Your task to perform on an android device: toggle data saver in the chrome app Image 0: 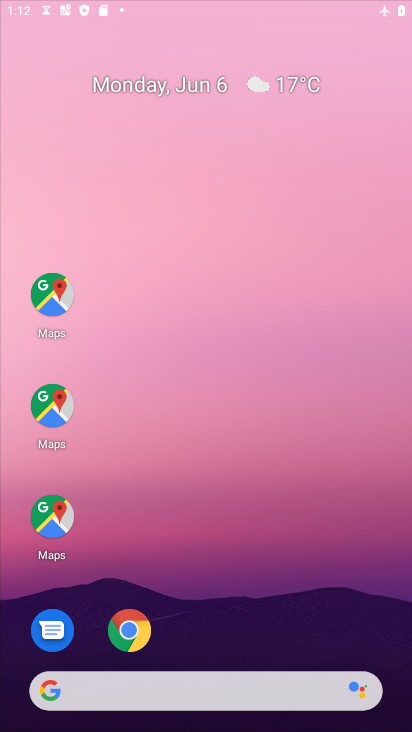
Step 0: drag from (175, 170) to (252, 139)
Your task to perform on an android device: toggle data saver in the chrome app Image 1: 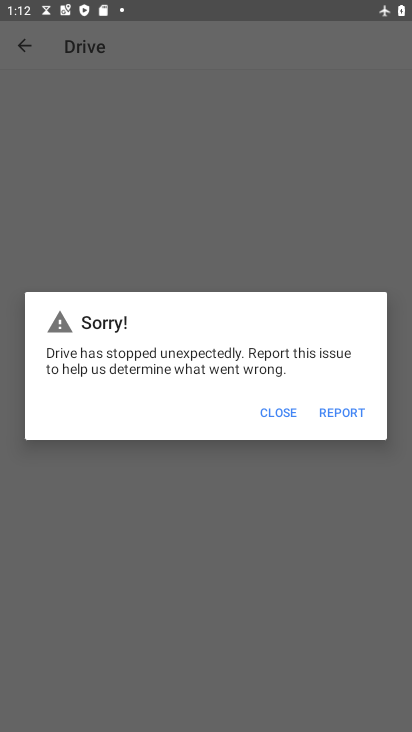
Step 1: click (272, 403)
Your task to perform on an android device: toggle data saver in the chrome app Image 2: 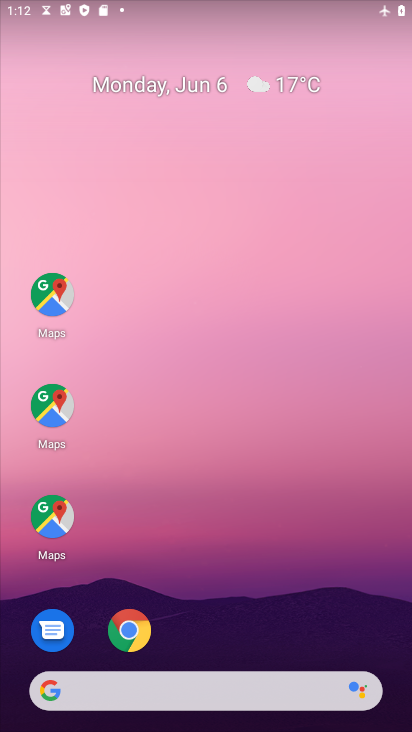
Step 2: drag from (238, 596) to (237, 140)
Your task to perform on an android device: toggle data saver in the chrome app Image 3: 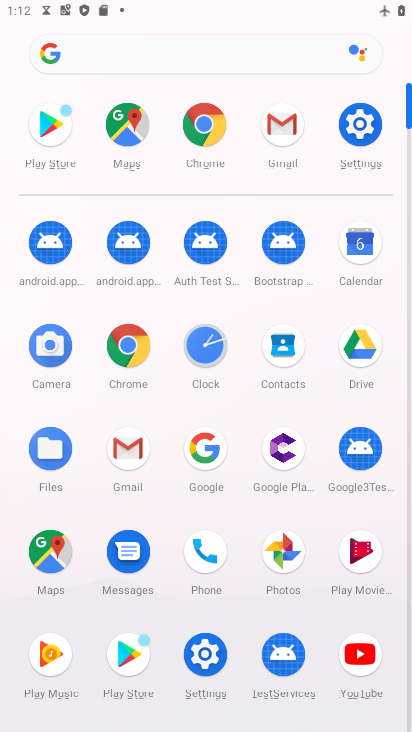
Step 3: click (192, 117)
Your task to perform on an android device: toggle data saver in the chrome app Image 4: 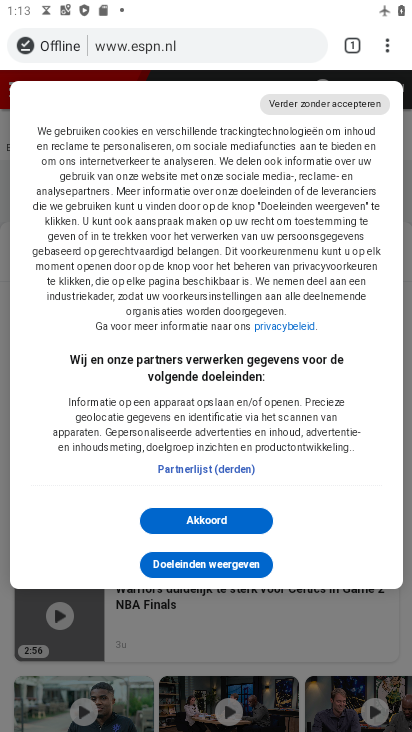
Step 4: drag from (382, 44) to (261, 361)
Your task to perform on an android device: toggle data saver in the chrome app Image 5: 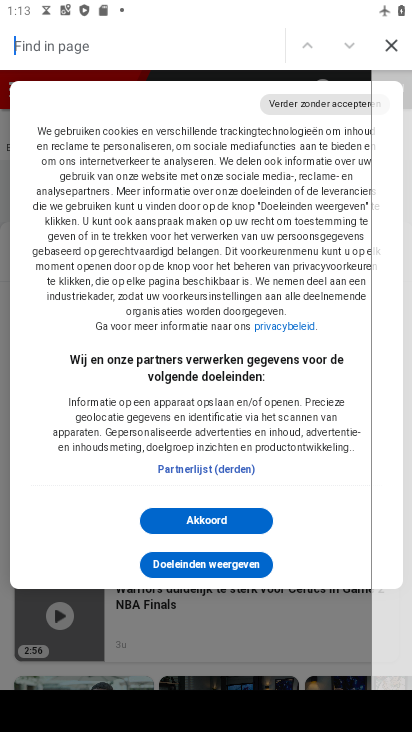
Step 5: click (261, 321)
Your task to perform on an android device: toggle data saver in the chrome app Image 6: 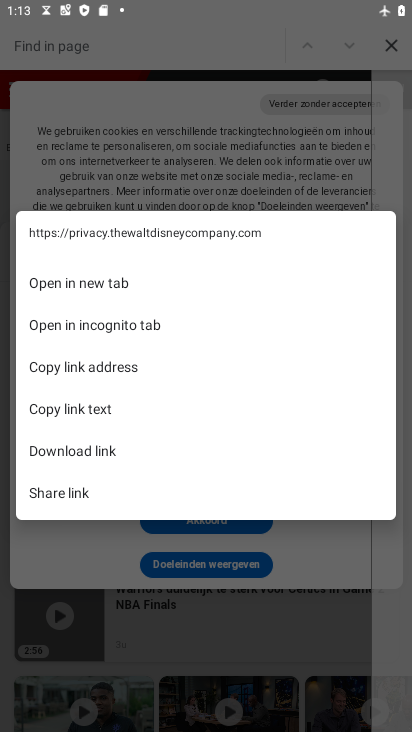
Step 6: click (364, 547)
Your task to perform on an android device: toggle data saver in the chrome app Image 7: 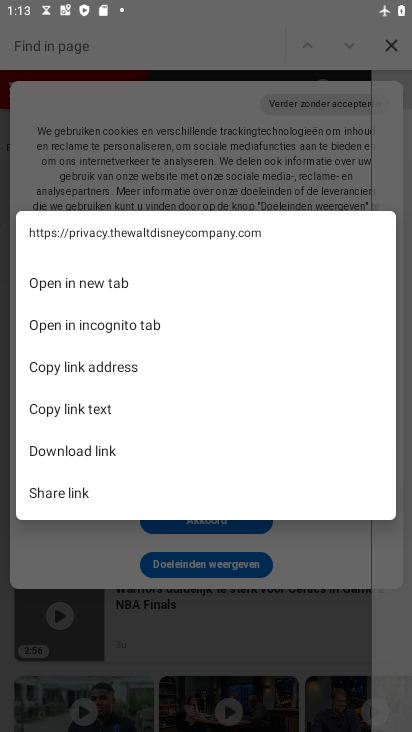
Step 7: click (363, 548)
Your task to perform on an android device: toggle data saver in the chrome app Image 8: 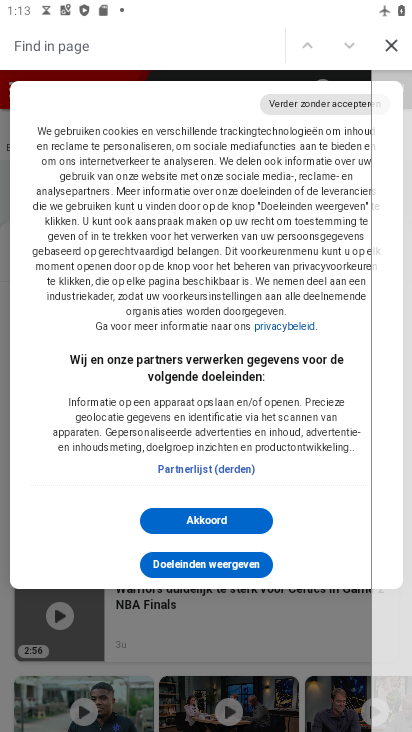
Step 8: click (403, 44)
Your task to perform on an android device: toggle data saver in the chrome app Image 9: 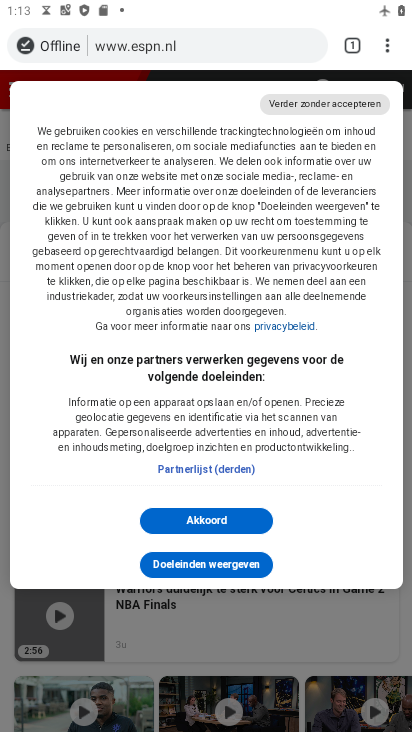
Step 9: click (400, 52)
Your task to perform on an android device: toggle data saver in the chrome app Image 10: 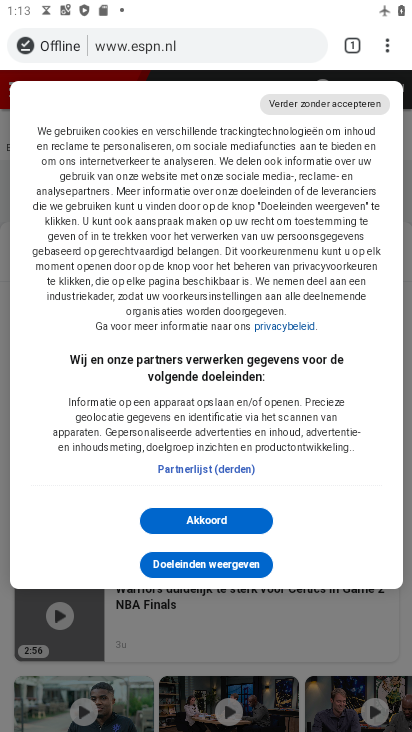
Step 10: click (400, 52)
Your task to perform on an android device: toggle data saver in the chrome app Image 11: 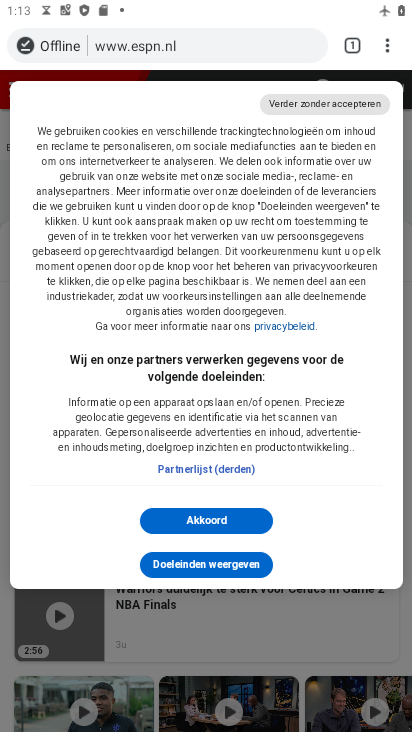
Step 11: click (400, 52)
Your task to perform on an android device: toggle data saver in the chrome app Image 12: 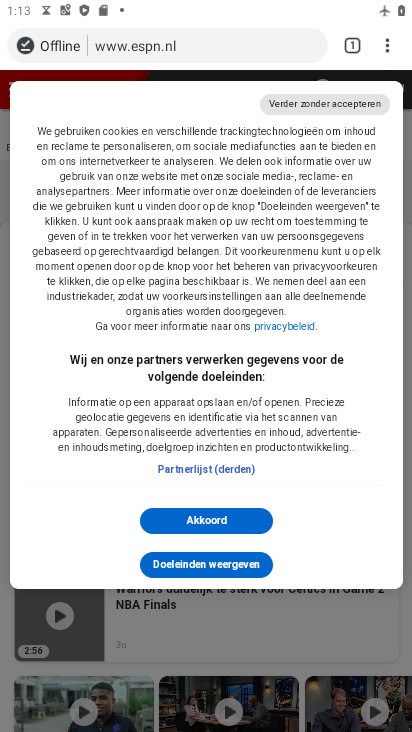
Step 12: drag from (385, 46) to (219, 94)
Your task to perform on an android device: toggle data saver in the chrome app Image 13: 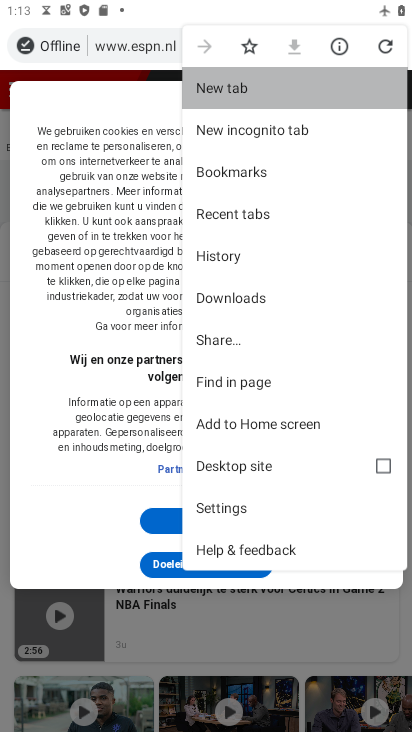
Step 13: click (219, 94)
Your task to perform on an android device: toggle data saver in the chrome app Image 14: 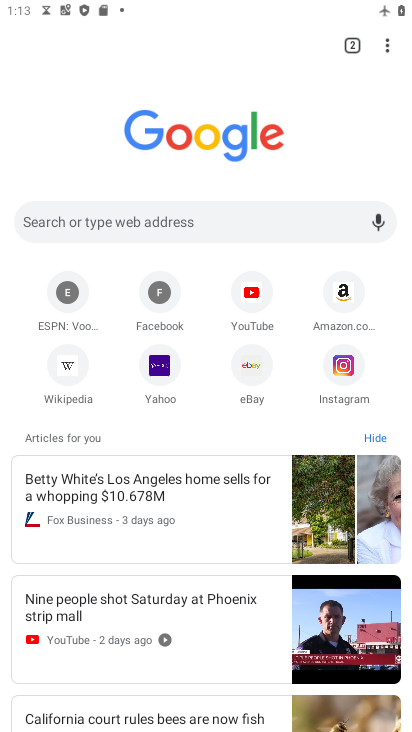
Step 14: drag from (381, 45) to (235, 380)
Your task to perform on an android device: toggle data saver in the chrome app Image 15: 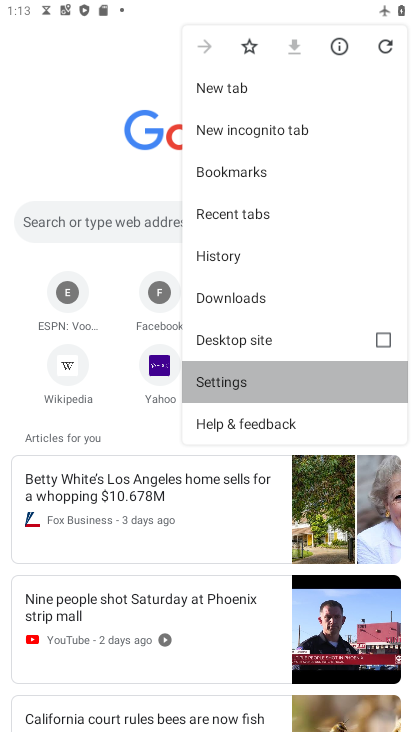
Step 15: click (237, 380)
Your task to perform on an android device: toggle data saver in the chrome app Image 16: 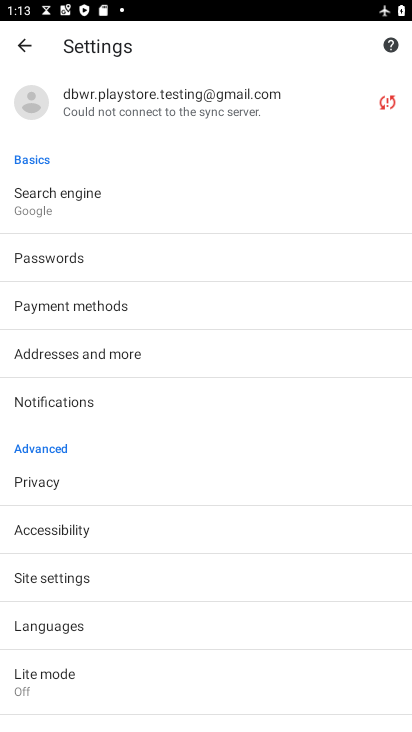
Step 16: click (34, 672)
Your task to perform on an android device: toggle data saver in the chrome app Image 17: 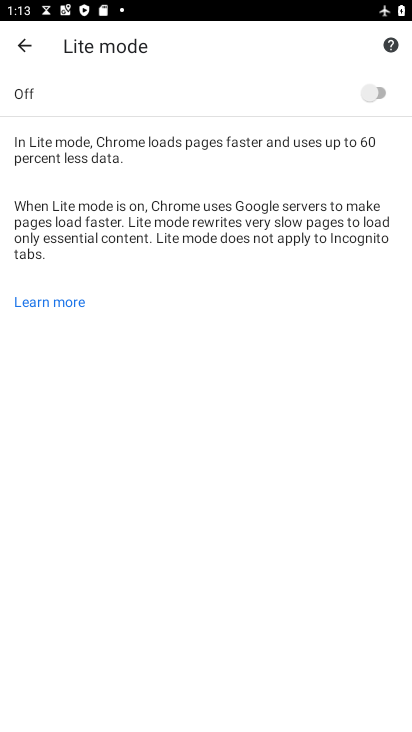
Step 17: click (372, 94)
Your task to perform on an android device: toggle data saver in the chrome app Image 18: 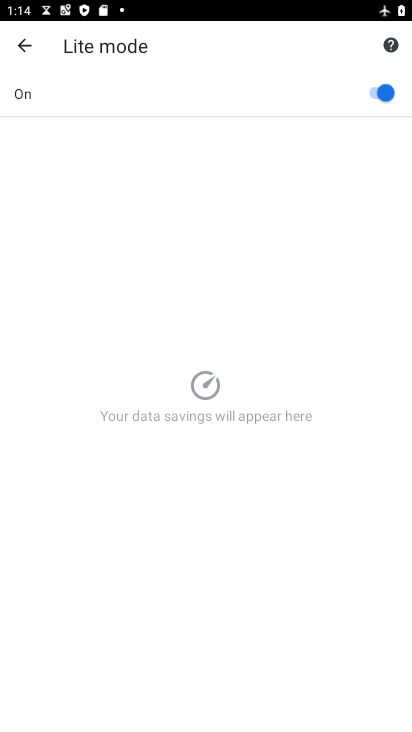
Step 18: task complete